Your task to perform on an android device: turn off location Image 0: 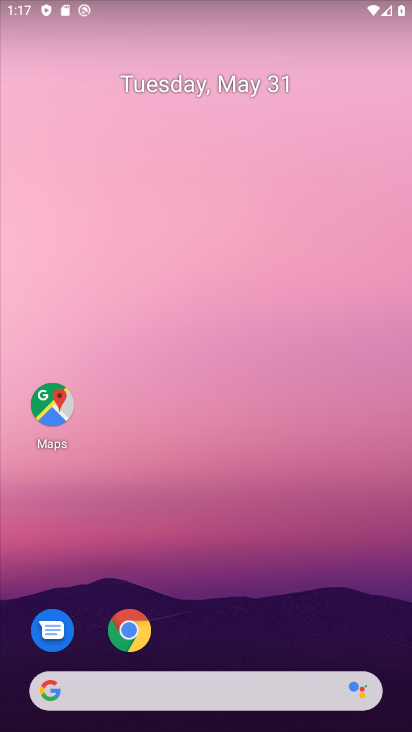
Step 0: drag from (272, 617) to (186, 52)
Your task to perform on an android device: turn off location Image 1: 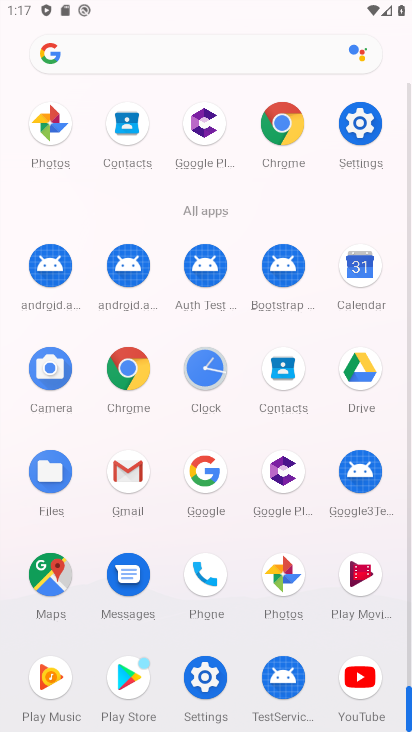
Step 1: drag from (13, 563) to (18, 265)
Your task to perform on an android device: turn off location Image 2: 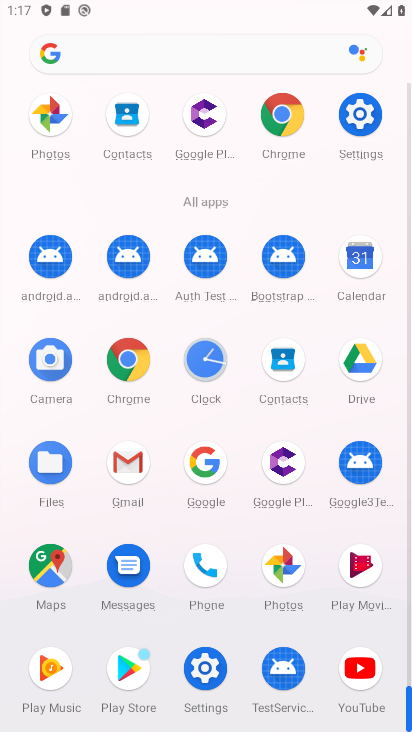
Step 2: click (203, 667)
Your task to perform on an android device: turn off location Image 3: 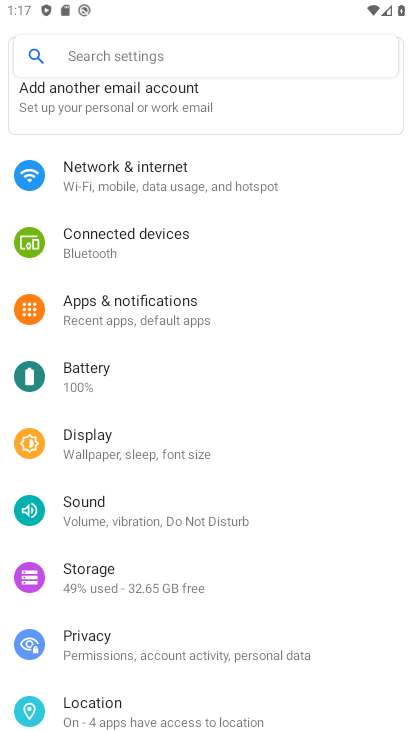
Step 3: click (112, 702)
Your task to perform on an android device: turn off location Image 4: 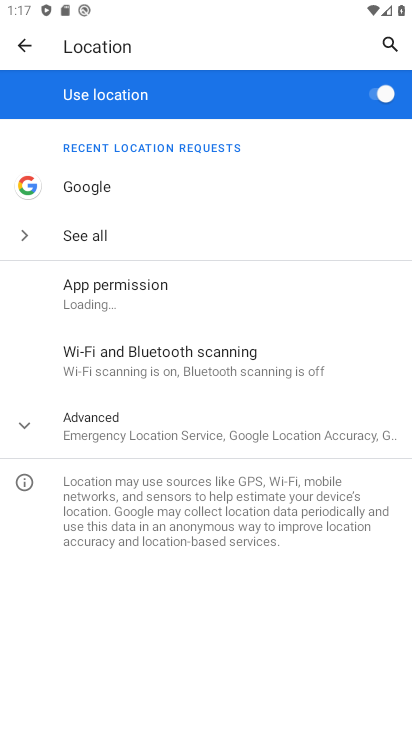
Step 4: click (86, 419)
Your task to perform on an android device: turn off location Image 5: 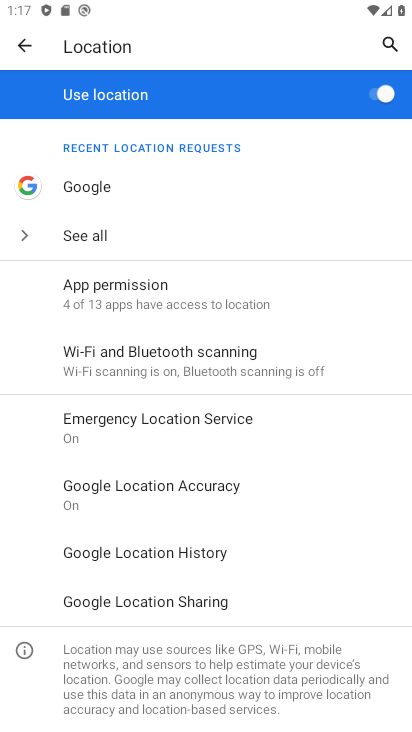
Step 5: click (365, 85)
Your task to perform on an android device: turn off location Image 6: 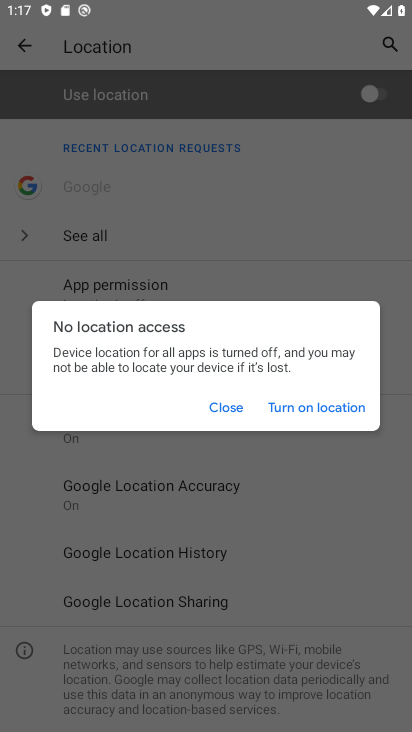
Step 6: click (226, 406)
Your task to perform on an android device: turn off location Image 7: 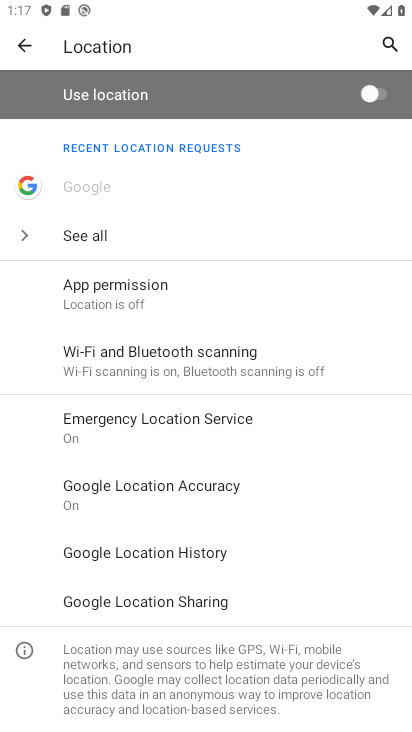
Step 7: task complete